Your task to perform on an android device: Open ESPN.com Image 0: 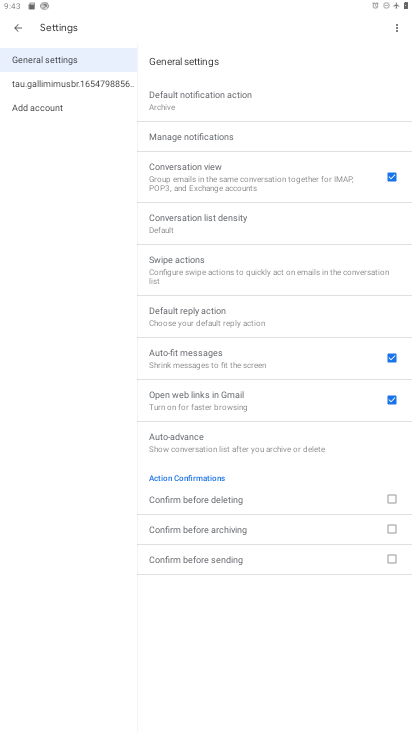
Step 0: press home button
Your task to perform on an android device: Open ESPN.com Image 1: 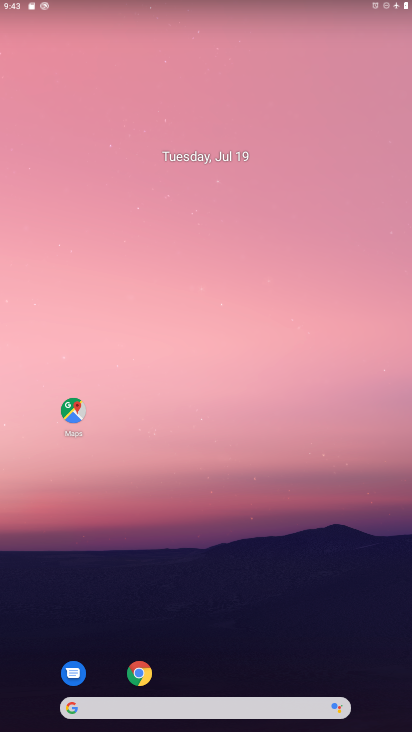
Step 1: click (141, 671)
Your task to perform on an android device: Open ESPN.com Image 2: 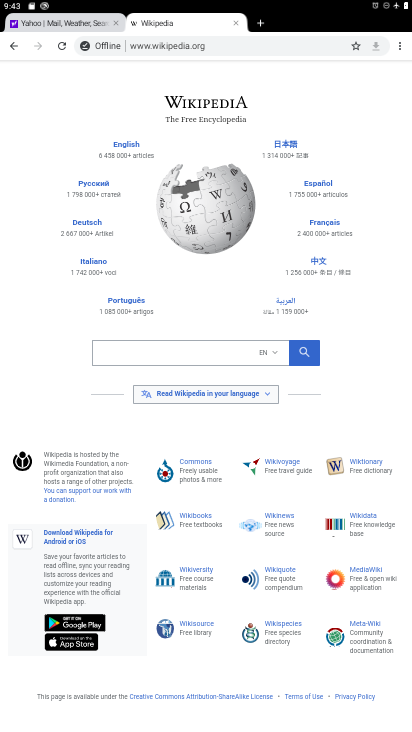
Step 2: click (233, 46)
Your task to perform on an android device: Open ESPN.com Image 3: 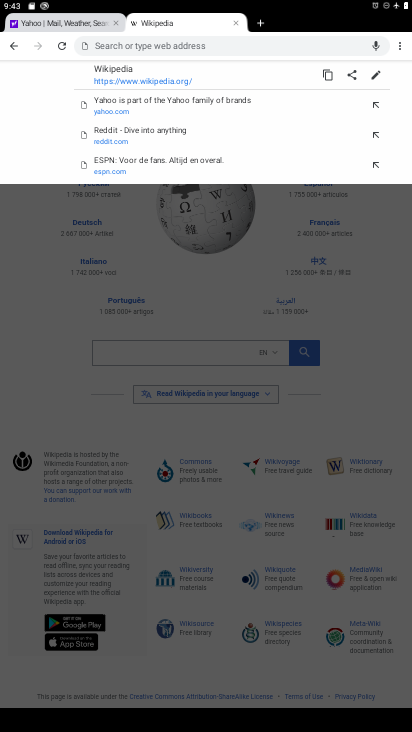
Step 3: type "espn.com"
Your task to perform on an android device: Open ESPN.com Image 4: 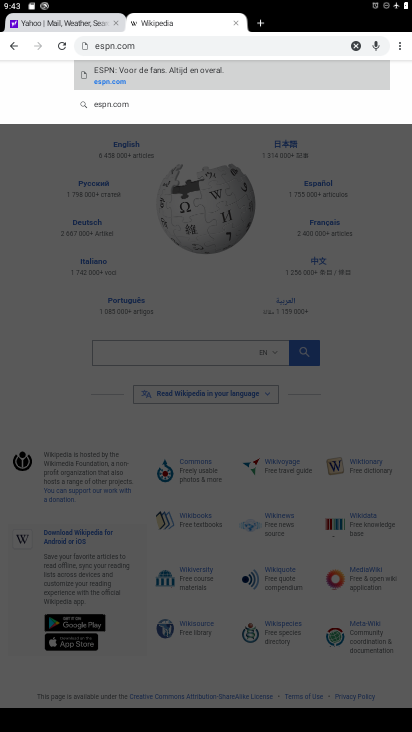
Step 4: click (116, 74)
Your task to perform on an android device: Open ESPN.com Image 5: 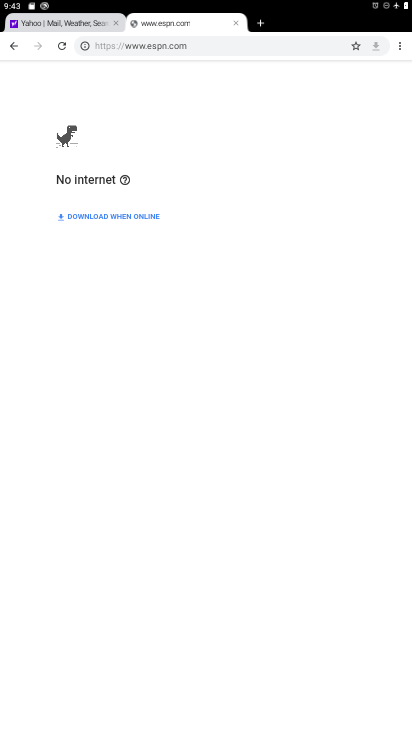
Step 5: task complete